Your task to perform on an android device: check google app version Image 0: 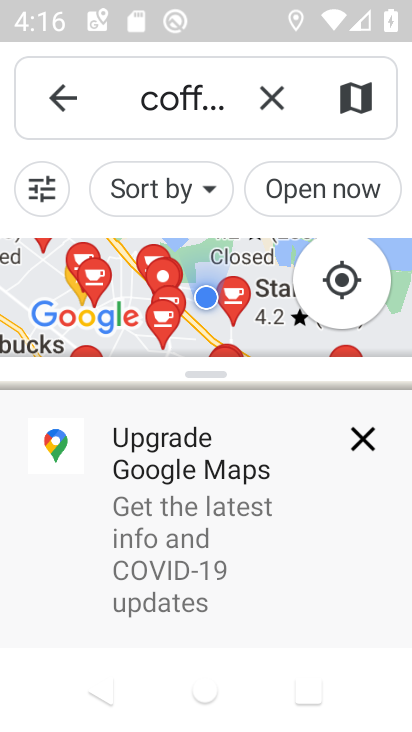
Step 0: click (373, 427)
Your task to perform on an android device: check google app version Image 1: 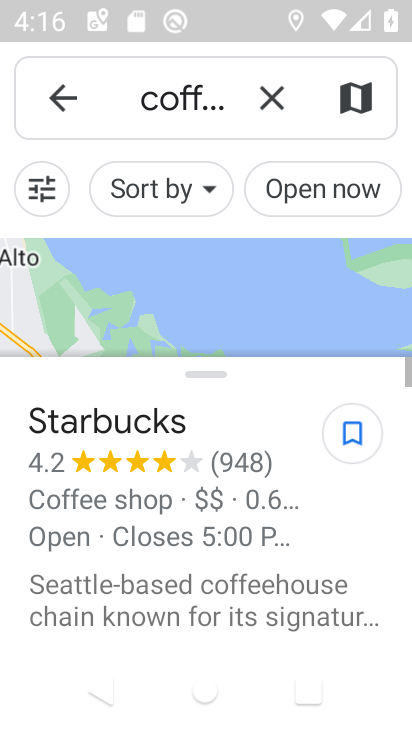
Step 1: press home button
Your task to perform on an android device: check google app version Image 2: 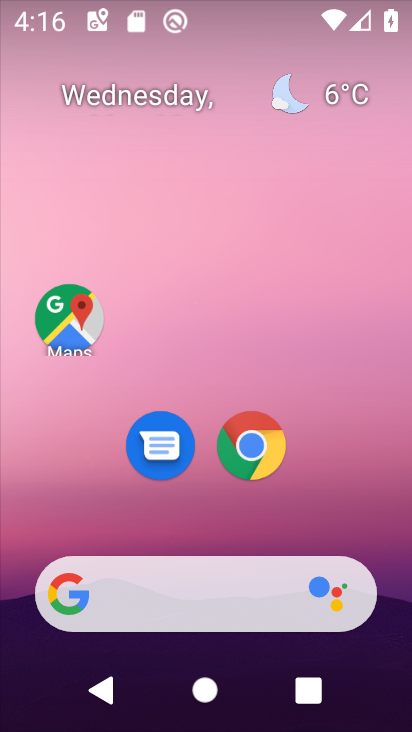
Step 2: click (194, 522)
Your task to perform on an android device: check google app version Image 3: 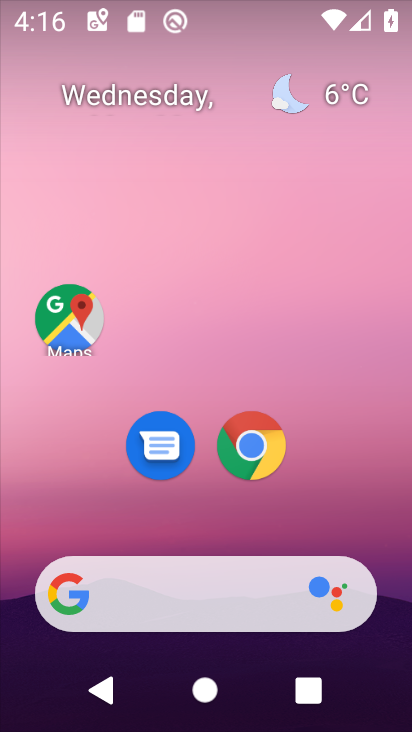
Step 3: click (162, 595)
Your task to perform on an android device: check google app version Image 4: 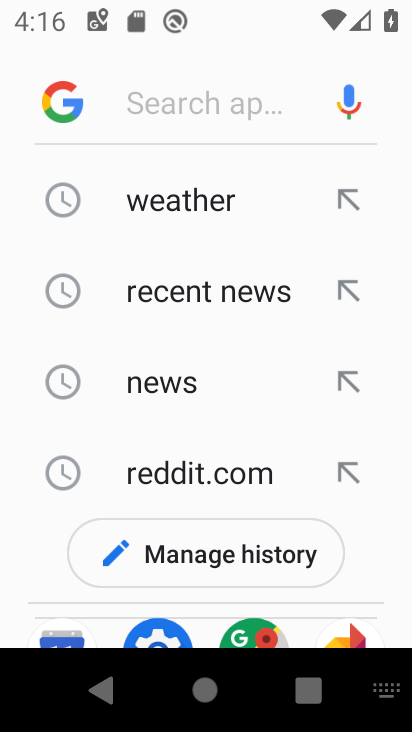
Step 4: click (52, 92)
Your task to perform on an android device: check google app version Image 5: 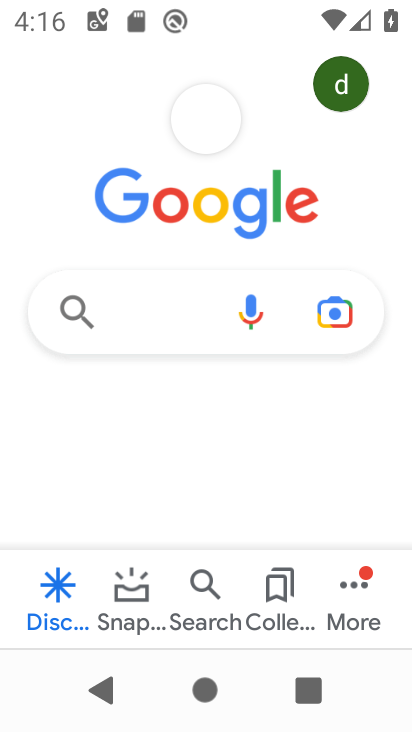
Step 5: click (359, 581)
Your task to perform on an android device: check google app version Image 6: 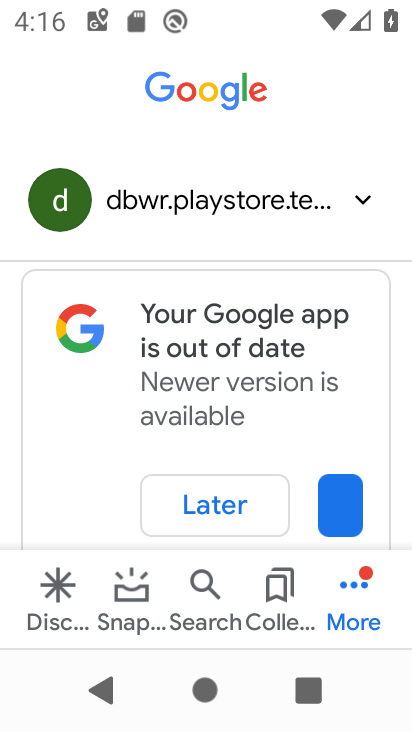
Step 6: click (212, 509)
Your task to perform on an android device: check google app version Image 7: 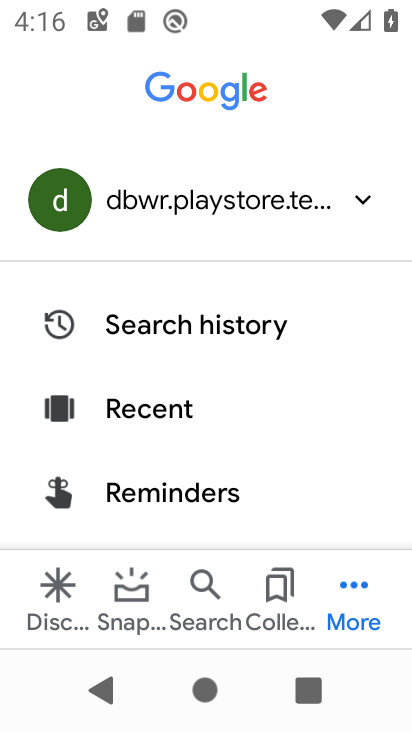
Step 7: drag from (226, 536) to (236, 124)
Your task to perform on an android device: check google app version Image 8: 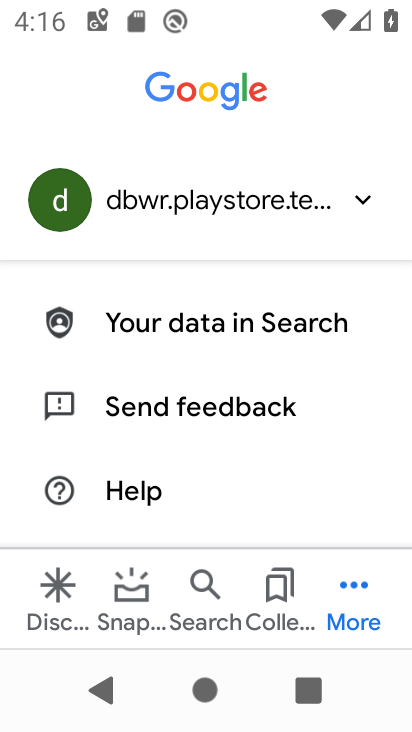
Step 8: drag from (207, 448) to (245, 26)
Your task to perform on an android device: check google app version Image 9: 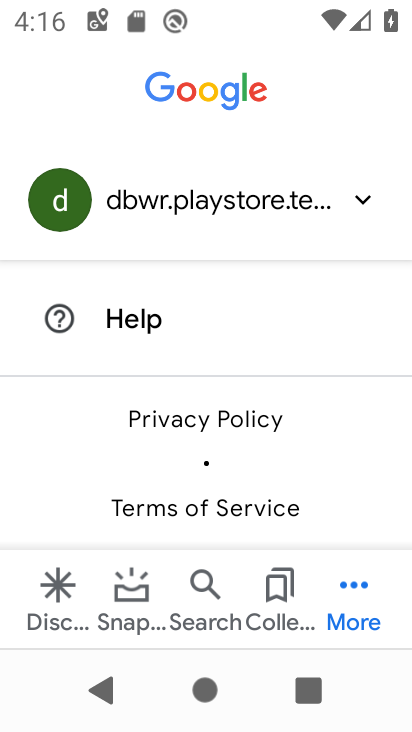
Step 9: drag from (203, 370) to (225, 77)
Your task to perform on an android device: check google app version Image 10: 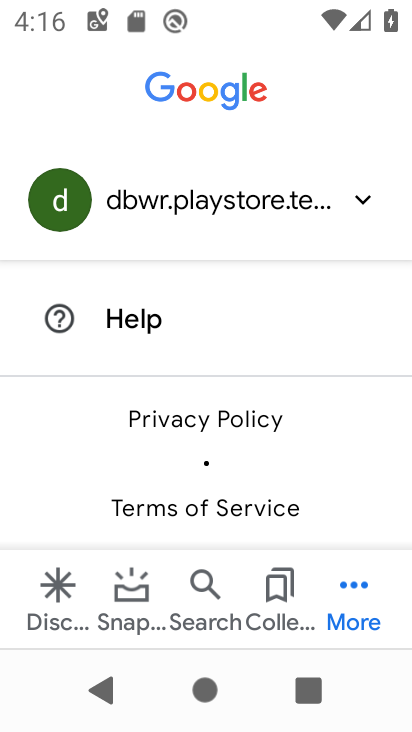
Step 10: drag from (212, 330) to (214, 551)
Your task to perform on an android device: check google app version Image 11: 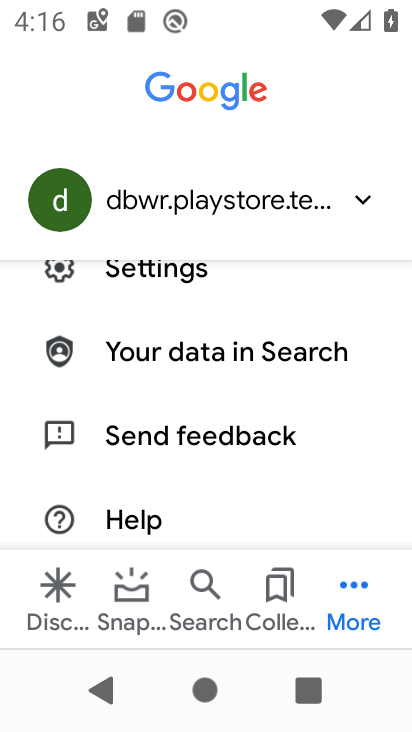
Step 11: drag from (207, 399) to (227, 559)
Your task to perform on an android device: check google app version Image 12: 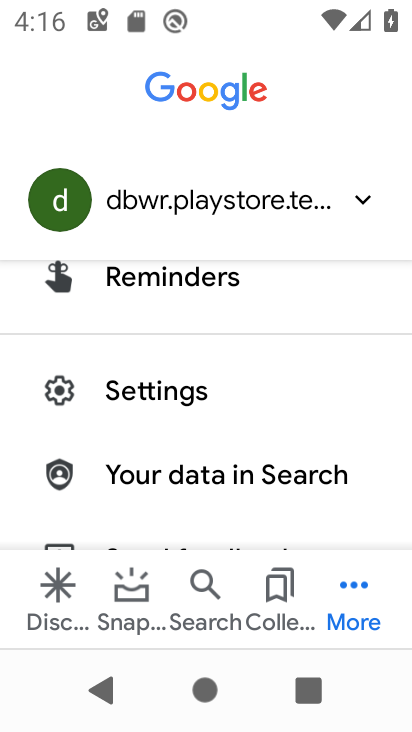
Step 12: click (181, 416)
Your task to perform on an android device: check google app version Image 13: 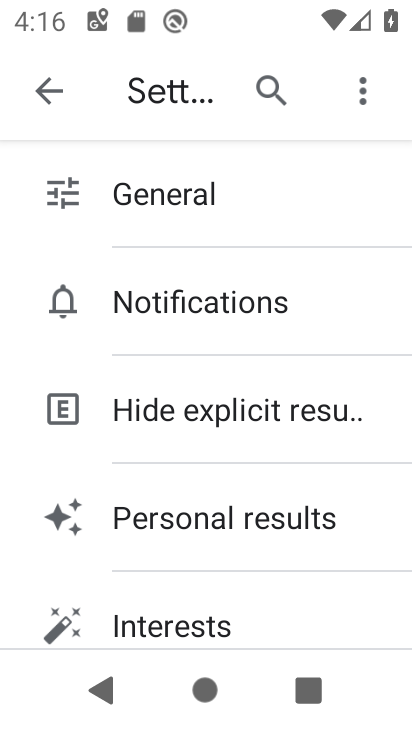
Step 13: drag from (229, 547) to (250, 209)
Your task to perform on an android device: check google app version Image 14: 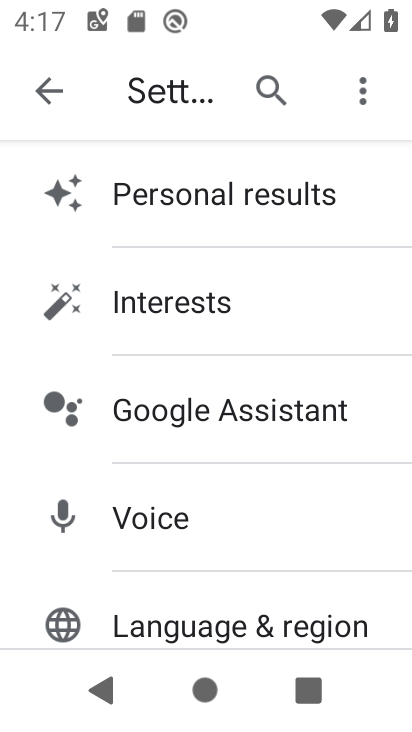
Step 14: drag from (197, 562) to (234, 202)
Your task to perform on an android device: check google app version Image 15: 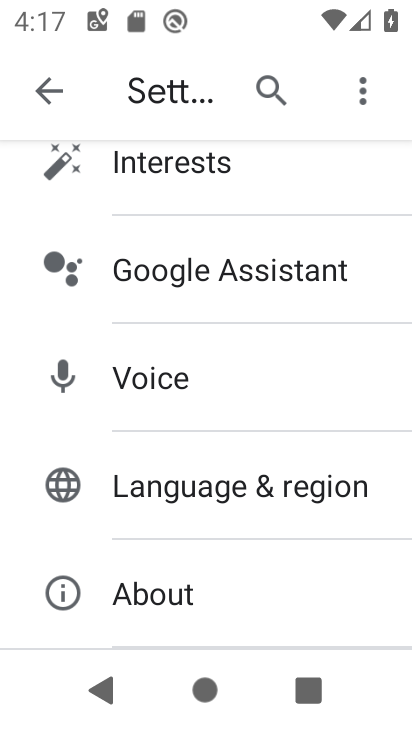
Step 15: click (193, 587)
Your task to perform on an android device: check google app version Image 16: 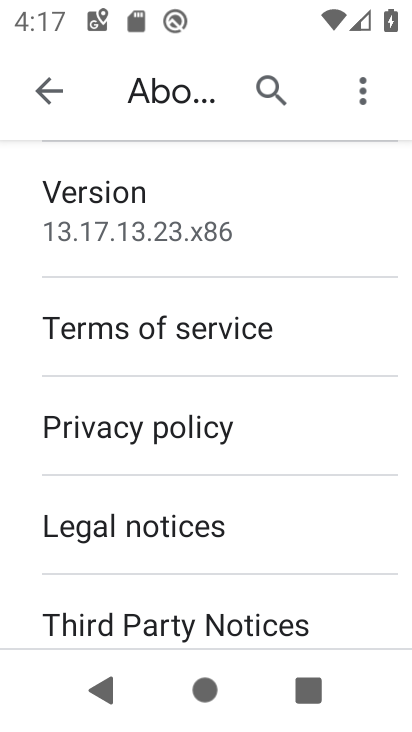
Step 16: task complete